Your task to perform on an android device: Go to wifi settings Image 0: 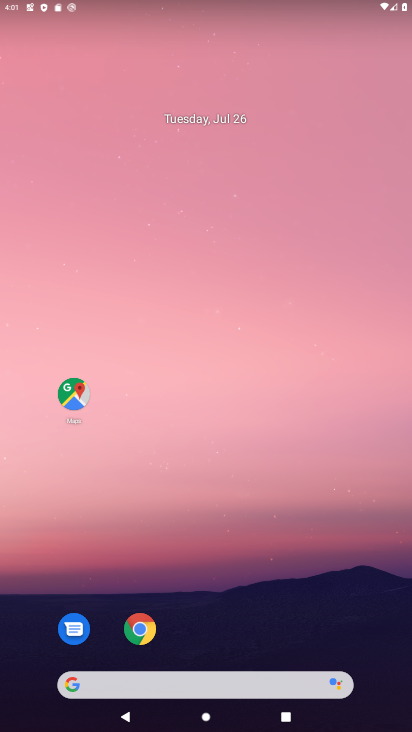
Step 0: drag from (285, 63) to (292, 267)
Your task to perform on an android device: Go to wifi settings Image 1: 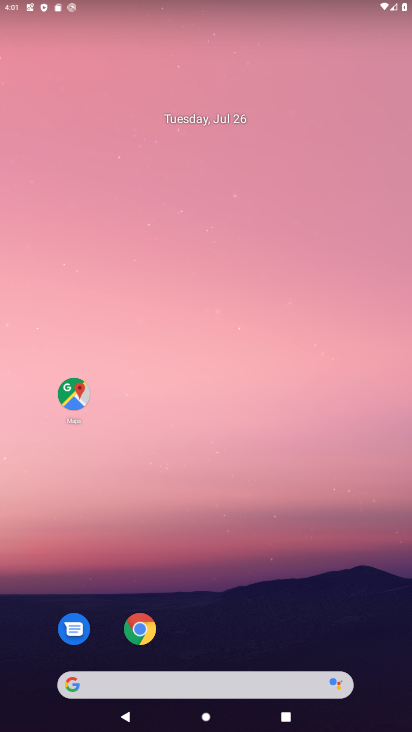
Step 1: drag from (233, 0) to (292, 675)
Your task to perform on an android device: Go to wifi settings Image 2: 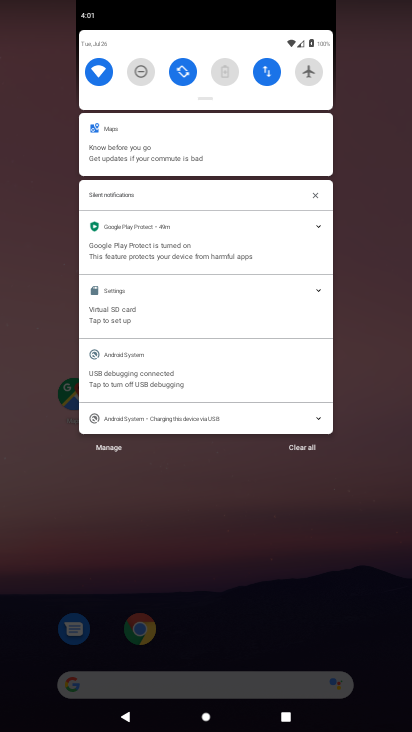
Step 2: click (98, 74)
Your task to perform on an android device: Go to wifi settings Image 3: 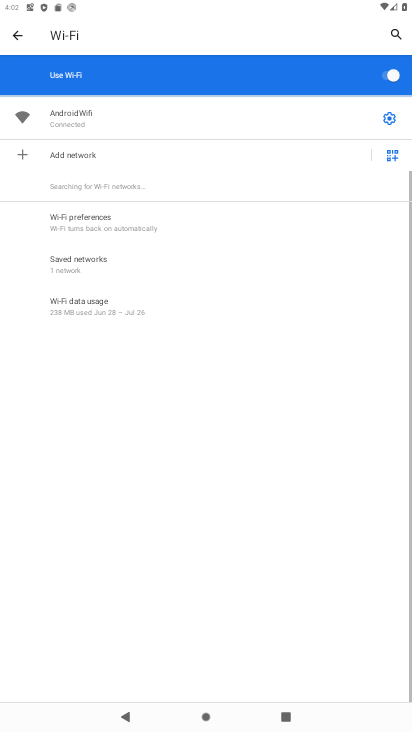
Step 3: task complete